Your task to perform on an android device: change the clock style Image 0: 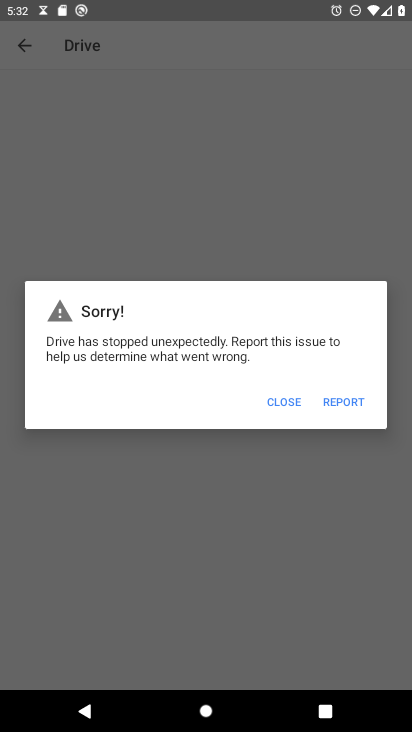
Step 0: press back button
Your task to perform on an android device: change the clock style Image 1: 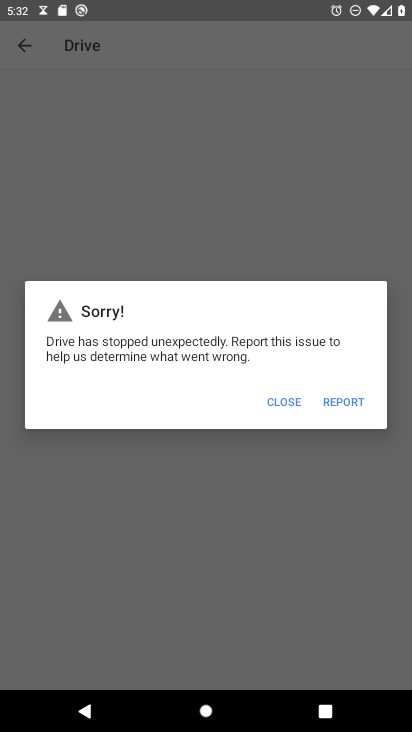
Step 1: press home button
Your task to perform on an android device: change the clock style Image 2: 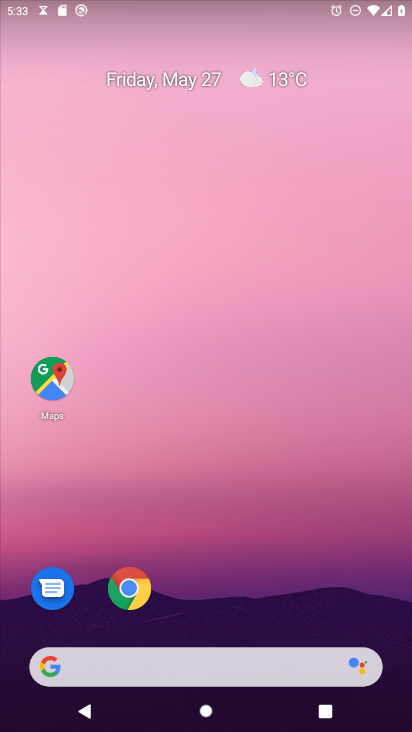
Step 2: drag from (264, 482) to (252, 49)
Your task to perform on an android device: change the clock style Image 3: 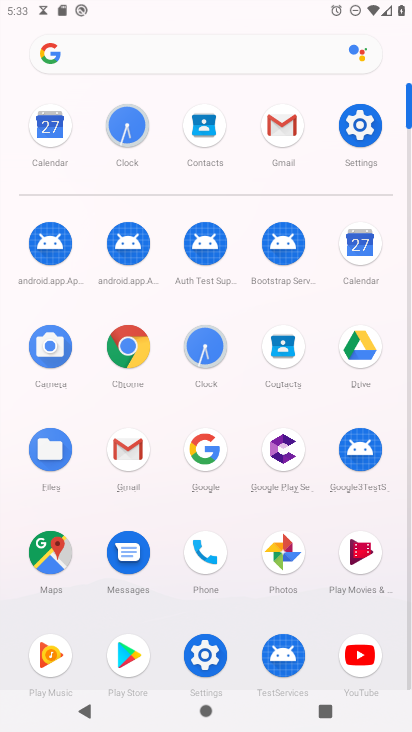
Step 3: click (210, 349)
Your task to perform on an android device: change the clock style Image 4: 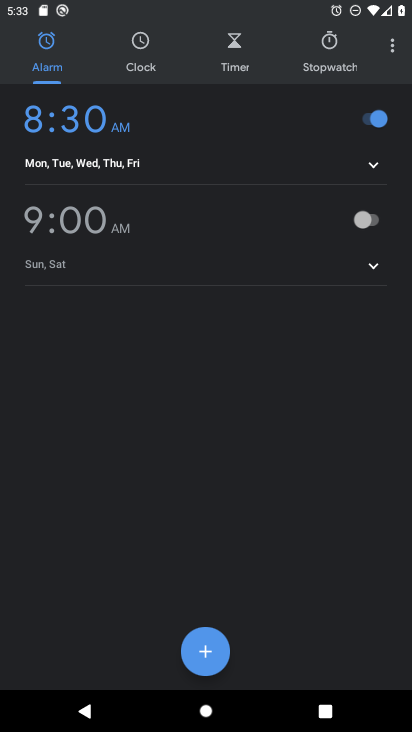
Step 4: click (384, 41)
Your task to perform on an android device: change the clock style Image 5: 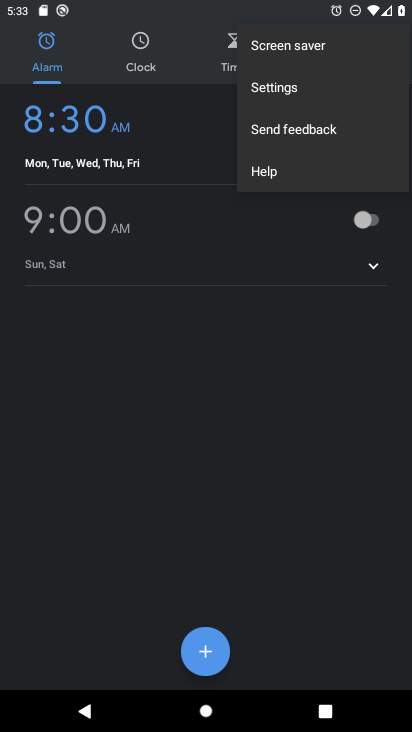
Step 5: click (261, 79)
Your task to perform on an android device: change the clock style Image 6: 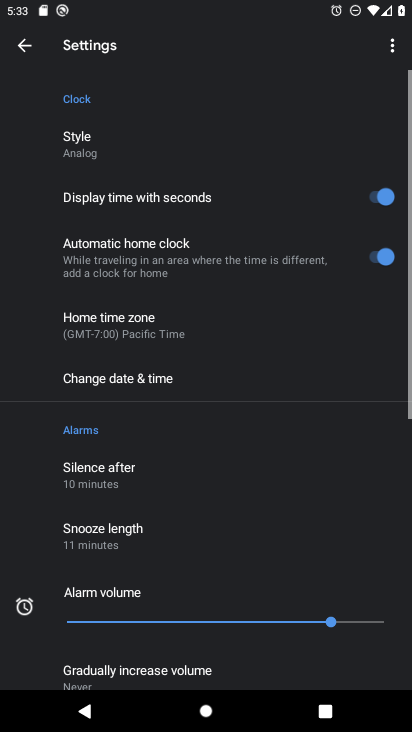
Step 6: click (124, 138)
Your task to perform on an android device: change the clock style Image 7: 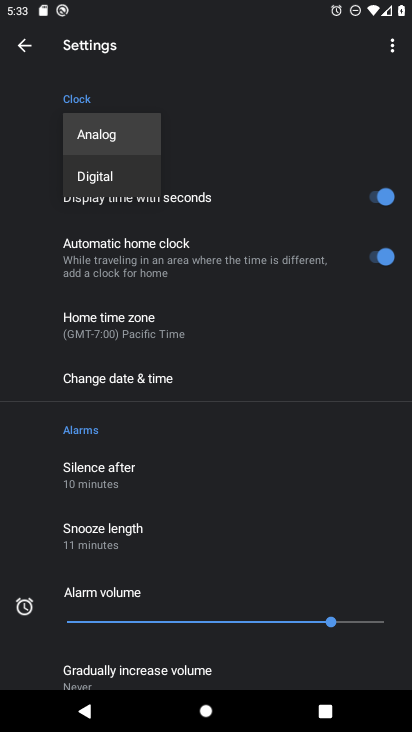
Step 7: click (111, 178)
Your task to perform on an android device: change the clock style Image 8: 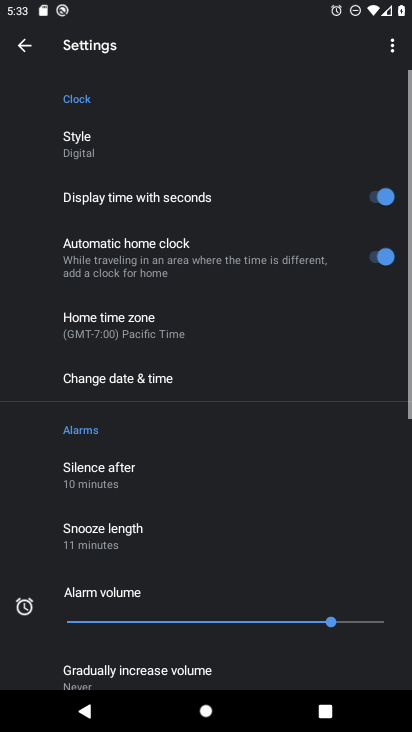
Step 8: task complete